Your task to perform on an android device: see tabs open on other devices in the chrome app Image 0: 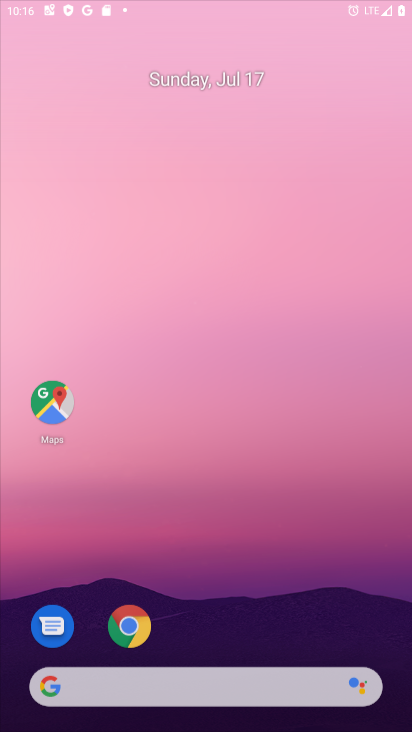
Step 0: press home button
Your task to perform on an android device: see tabs open on other devices in the chrome app Image 1: 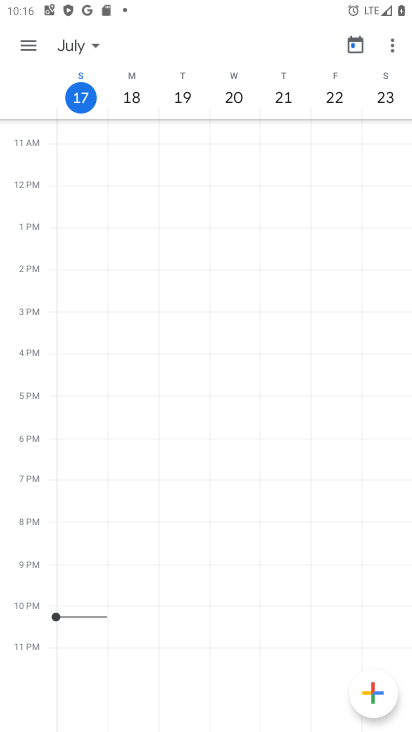
Step 1: click (218, 14)
Your task to perform on an android device: see tabs open on other devices in the chrome app Image 2: 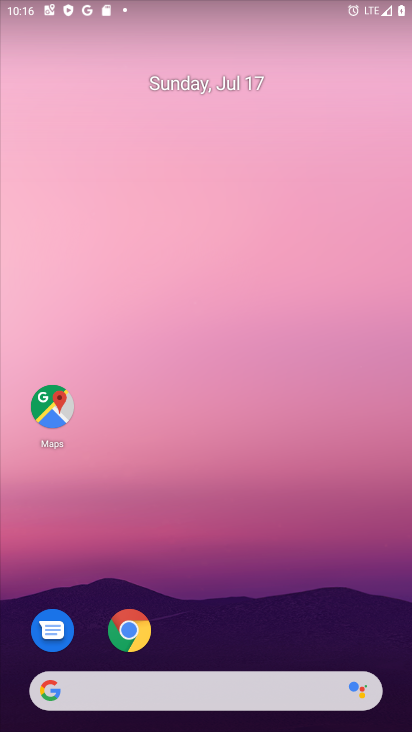
Step 2: click (127, 624)
Your task to perform on an android device: see tabs open on other devices in the chrome app Image 3: 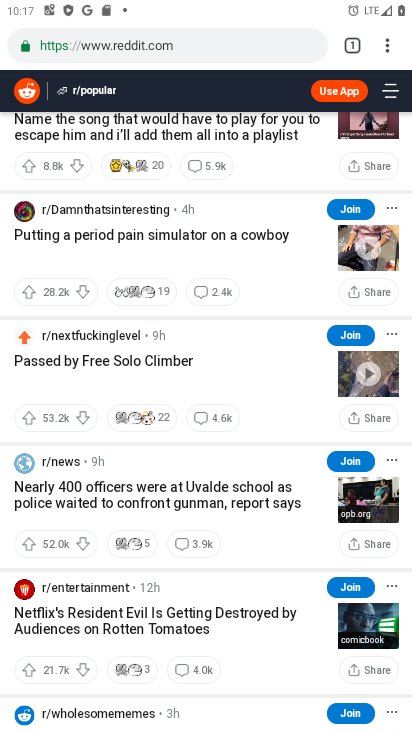
Step 3: click (387, 45)
Your task to perform on an android device: see tabs open on other devices in the chrome app Image 4: 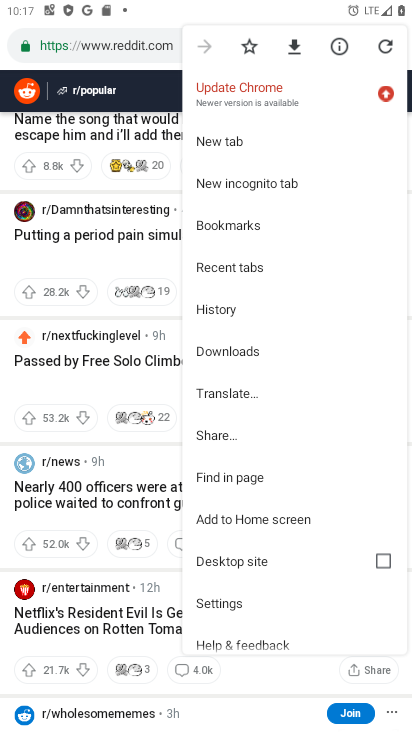
Step 4: click (263, 264)
Your task to perform on an android device: see tabs open on other devices in the chrome app Image 5: 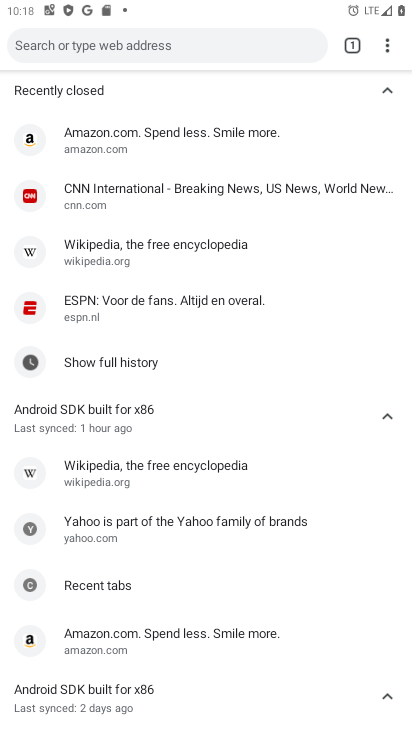
Step 5: task complete